Your task to perform on an android device: toggle pop-ups in chrome Image 0: 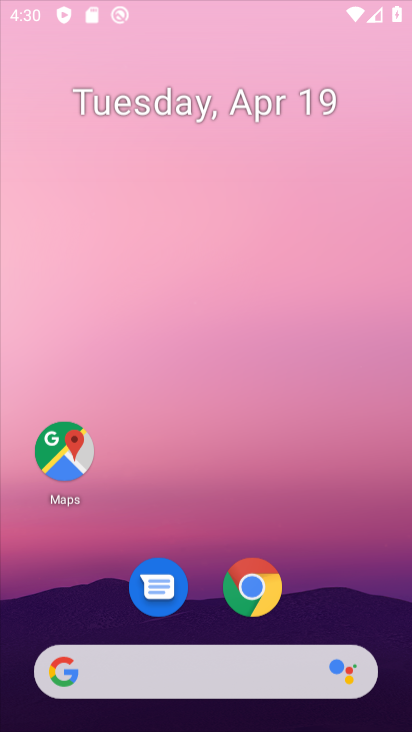
Step 0: click (309, 7)
Your task to perform on an android device: toggle pop-ups in chrome Image 1: 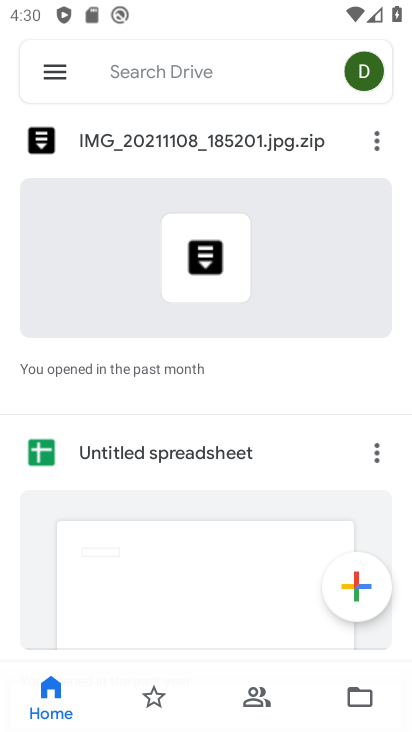
Step 1: press back button
Your task to perform on an android device: toggle pop-ups in chrome Image 2: 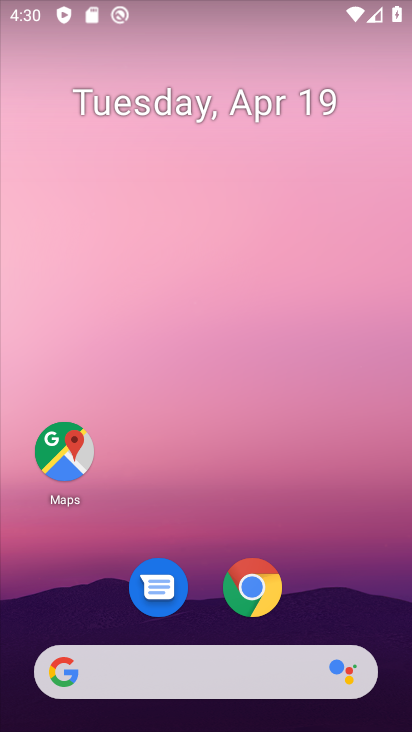
Step 2: click (249, 601)
Your task to perform on an android device: toggle pop-ups in chrome Image 3: 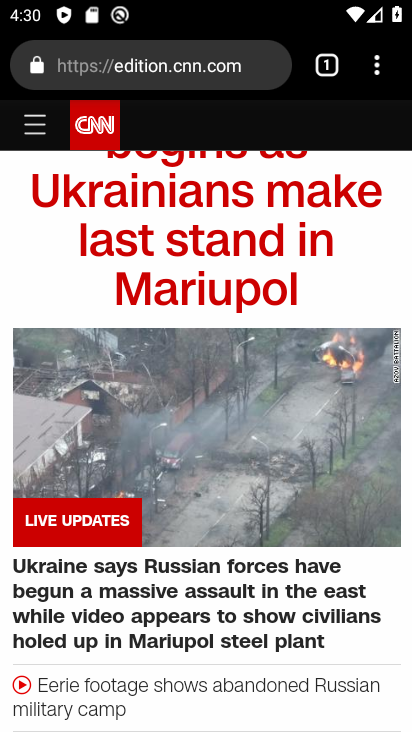
Step 3: click (381, 69)
Your task to perform on an android device: toggle pop-ups in chrome Image 4: 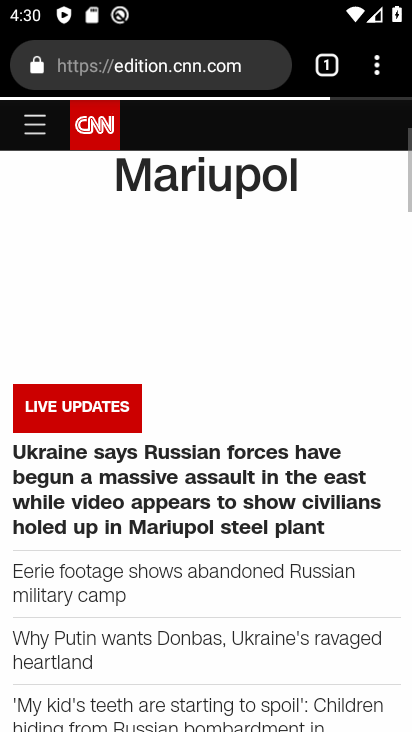
Step 4: drag from (381, 69) to (167, 642)
Your task to perform on an android device: toggle pop-ups in chrome Image 5: 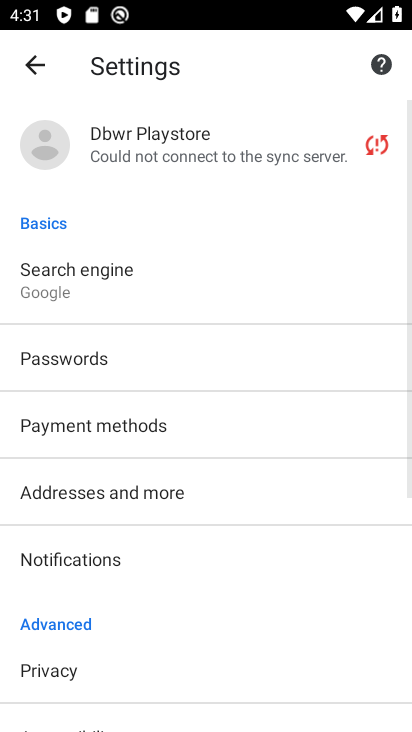
Step 5: drag from (216, 575) to (224, 126)
Your task to perform on an android device: toggle pop-ups in chrome Image 6: 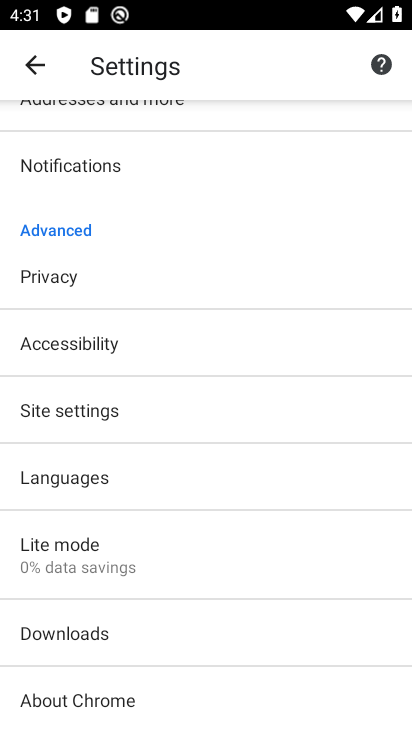
Step 6: click (125, 412)
Your task to perform on an android device: toggle pop-ups in chrome Image 7: 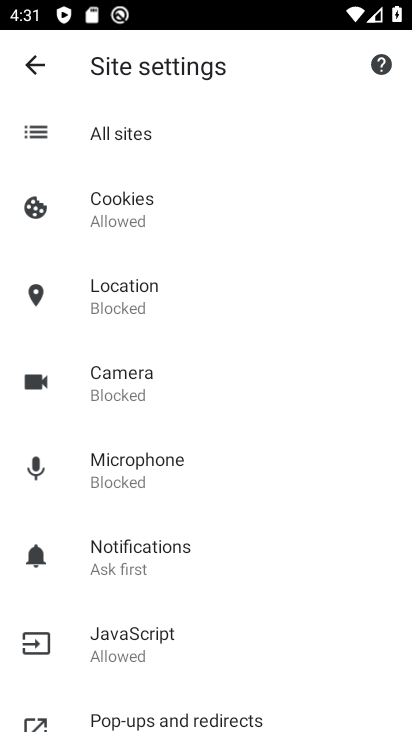
Step 7: drag from (228, 657) to (231, 251)
Your task to perform on an android device: toggle pop-ups in chrome Image 8: 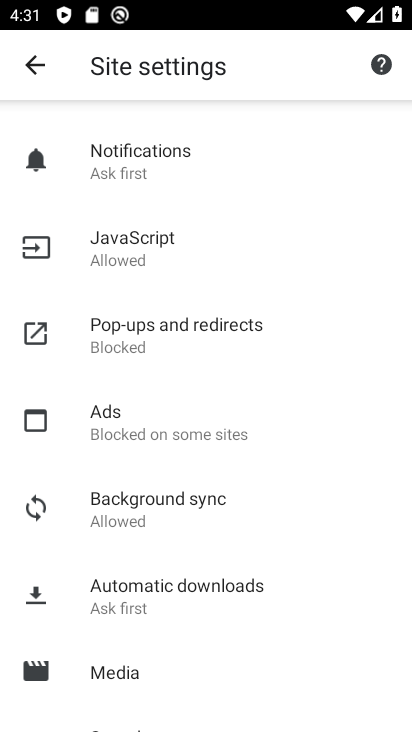
Step 8: click (215, 325)
Your task to perform on an android device: toggle pop-ups in chrome Image 9: 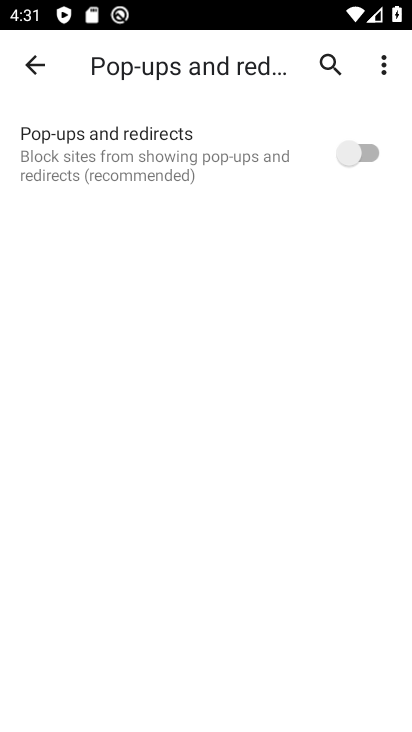
Step 9: click (352, 164)
Your task to perform on an android device: toggle pop-ups in chrome Image 10: 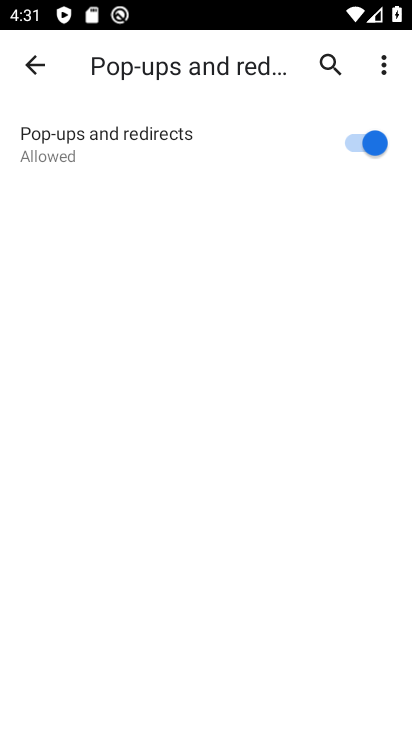
Step 10: task complete